Your task to perform on an android device: Search for Italian restaurants on Maps Image 0: 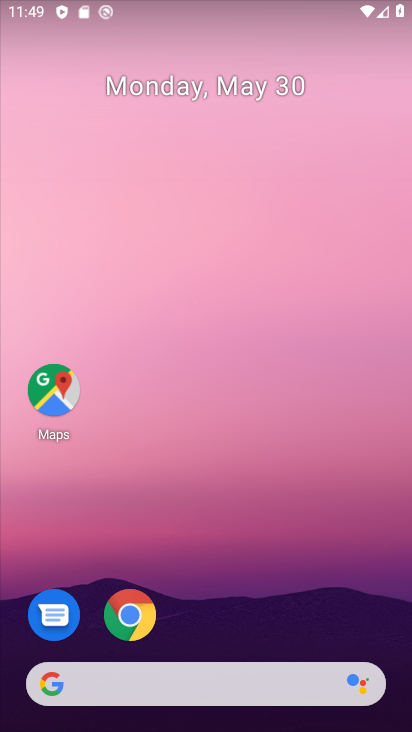
Step 0: click (58, 380)
Your task to perform on an android device: Search for Italian restaurants on Maps Image 1: 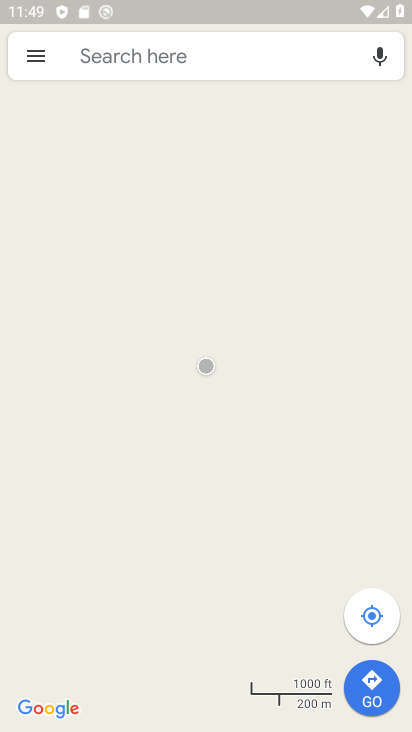
Step 1: click (196, 54)
Your task to perform on an android device: Search for Italian restaurants on Maps Image 2: 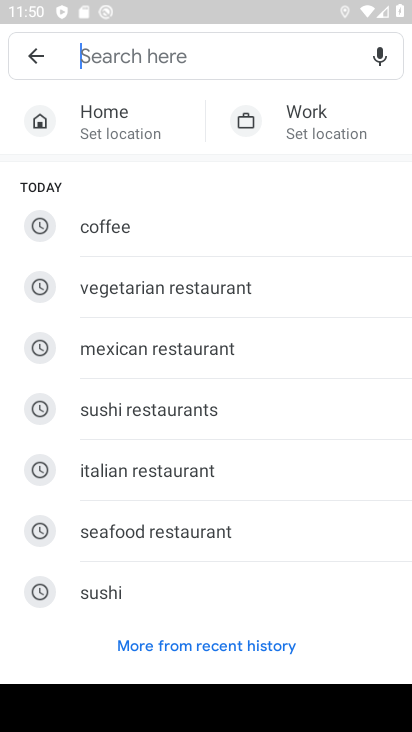
Step 2: type "italian restaurants"
Your task to perform on an android device: Search for Italian restaurants on Maps Image 3: 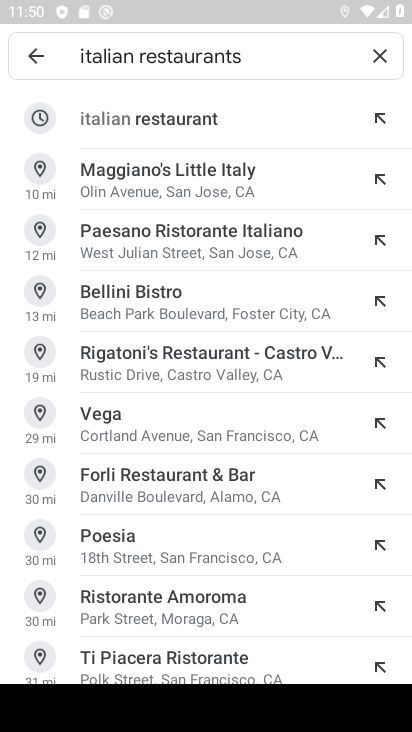
Step 3: click (230, 124)
Your task to perform on an android device: Search for Italian restaurants on Maps Image 4: 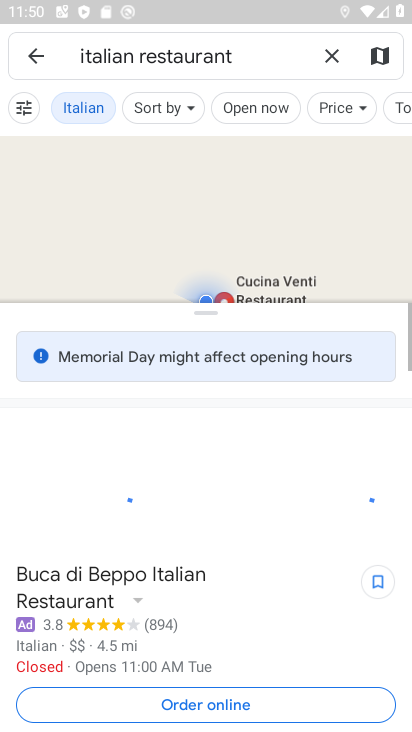
Step 4: task complete